Your task to perform on an android device: uninstall "Yahoo Mail" Image 0: 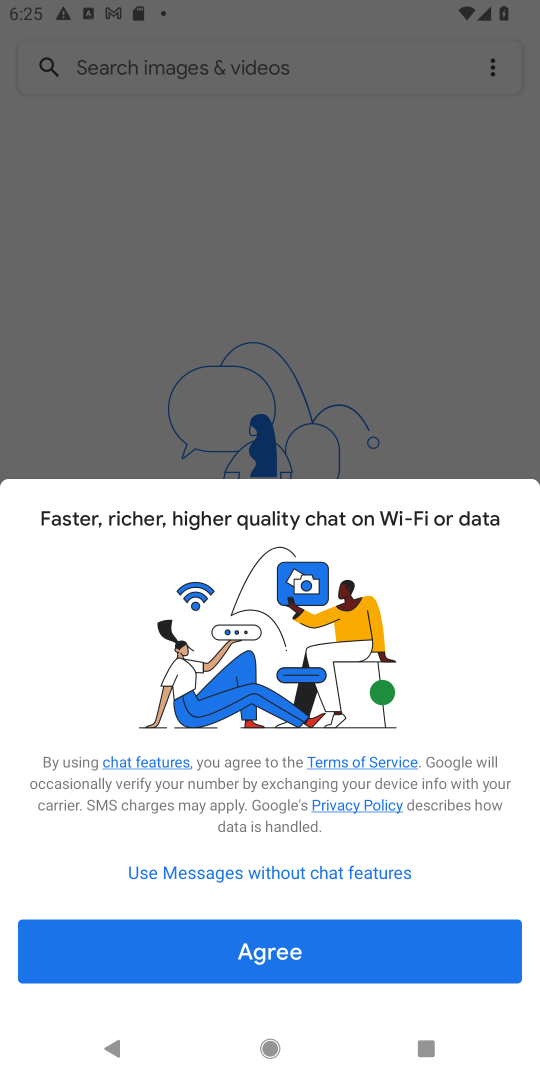
Step 0: press home button
Your task to perform on an android device: uninstall "Yahoo Mail" Image 1: 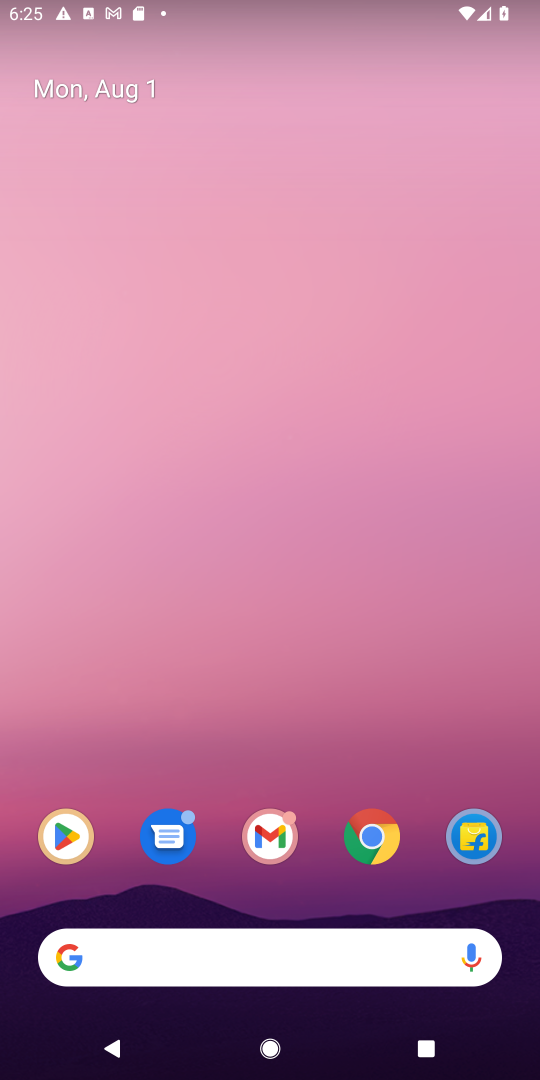
Step 1: click (59, 832)
Your task to perform on an android device: uninstall "Yahoo Mail" Image 2: 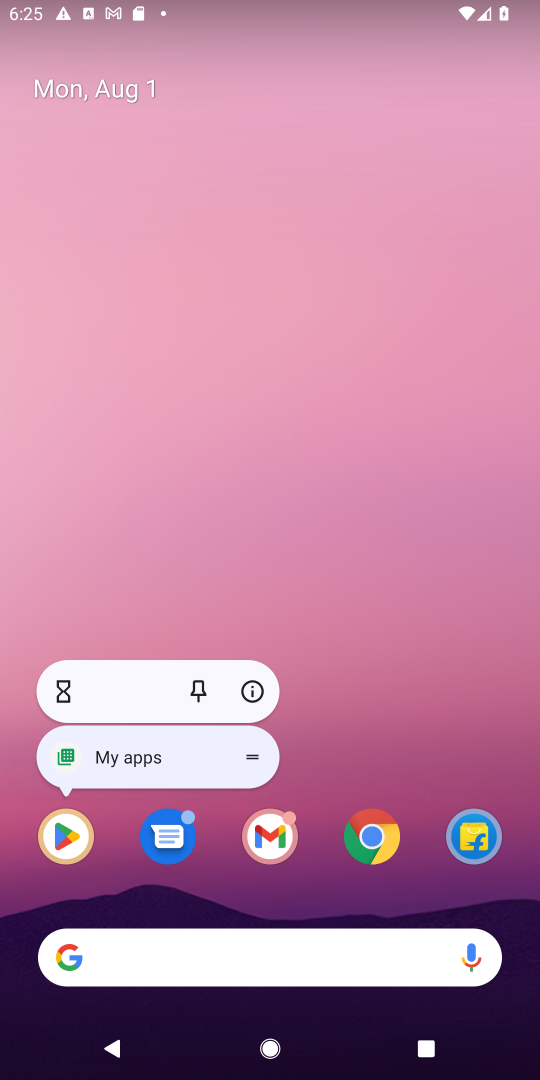
Step 2: click (59, 831)
Your task to perform on an android device: uninstall "Yahoo Mail" Image 3: 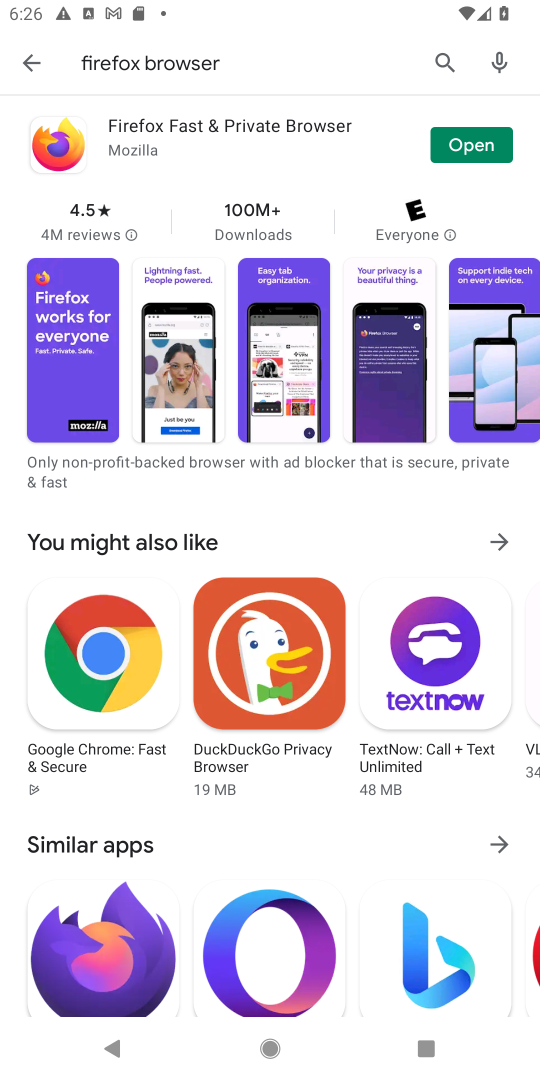
Step 3: click (442, 63)
Your task to perform on an android device: uninstall "Yahoo Mail" Image 4: 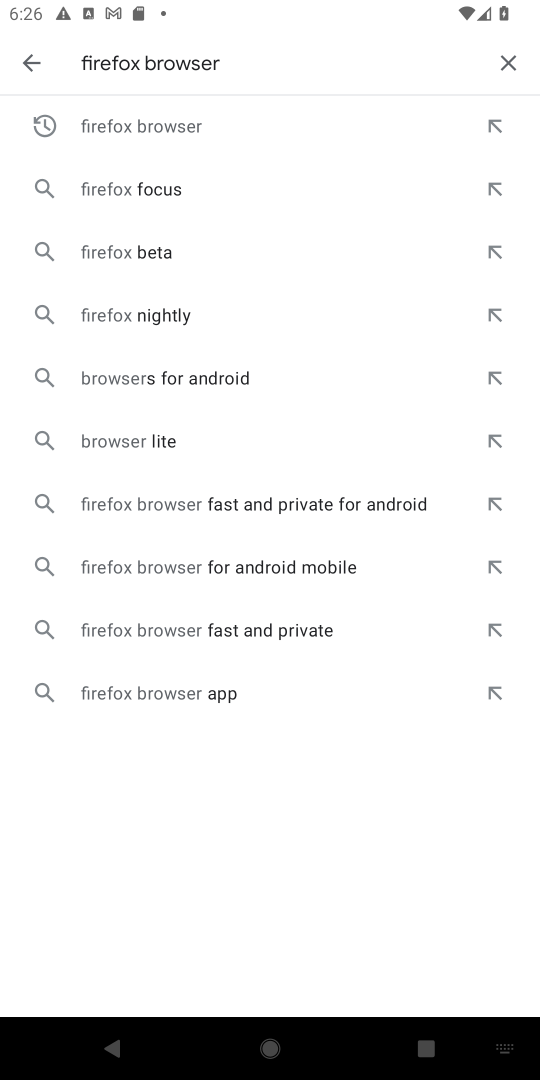
Step 4: click (507, 50)
Your task to perform on an android device: uninstall "Yahoo Mail" Image 5: 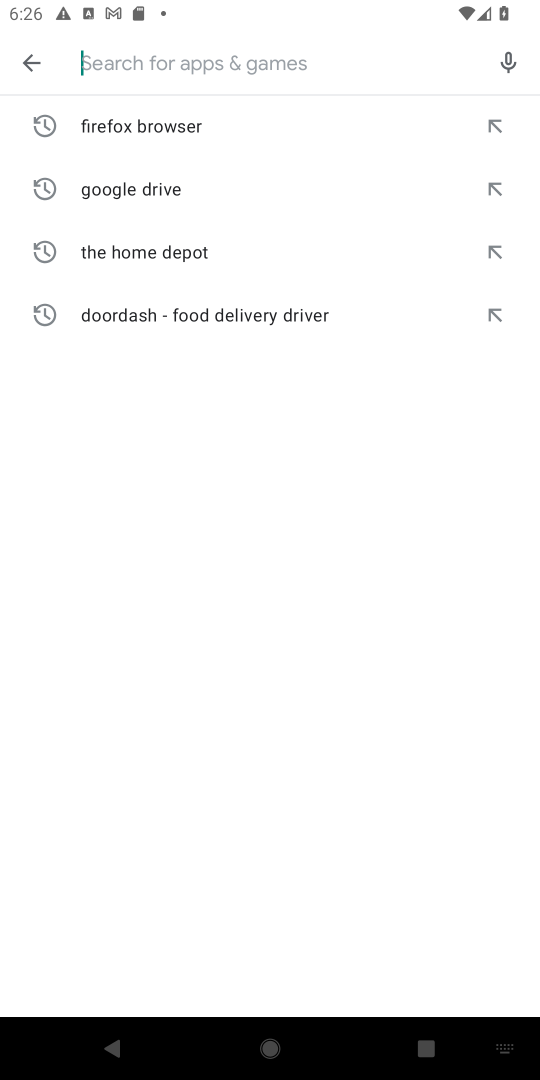
Step 5: type "Yahoo Mail"
Your task to perform on an android device: uninstall "Yahoo Mail" Image 6: 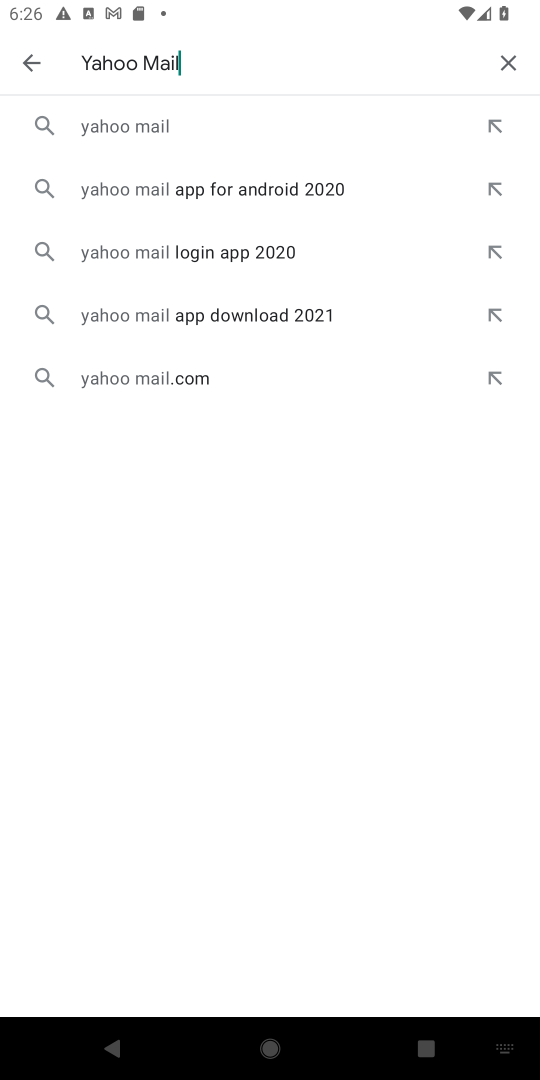
Step 6: click (161, 123)
Your task to perform on an android device: uninstall "Yahoo Mail" Image 7: 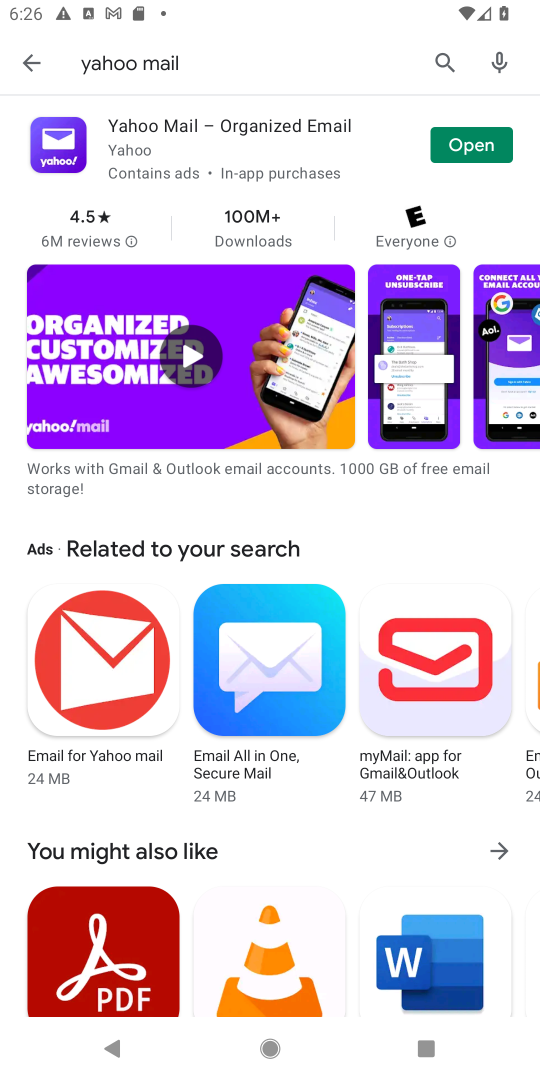
Step 7: click (81, 138)
Your task to perform on an android device: uninstall "Yahoo Mail" Image 8: 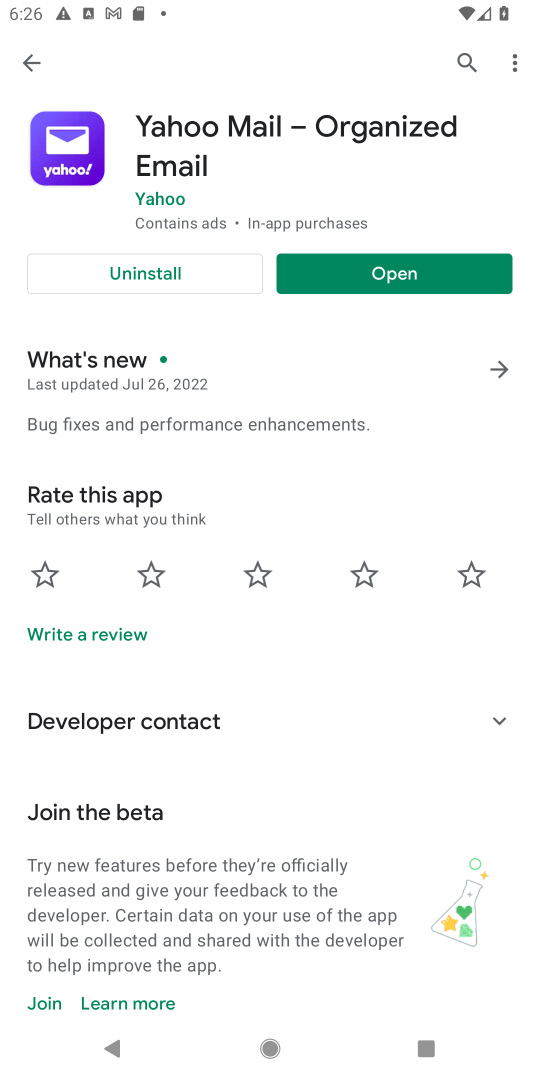
Step 8: click (198, 265)
Your task to perform on an android device: uninstall "Yahoo Mail" Image 9: 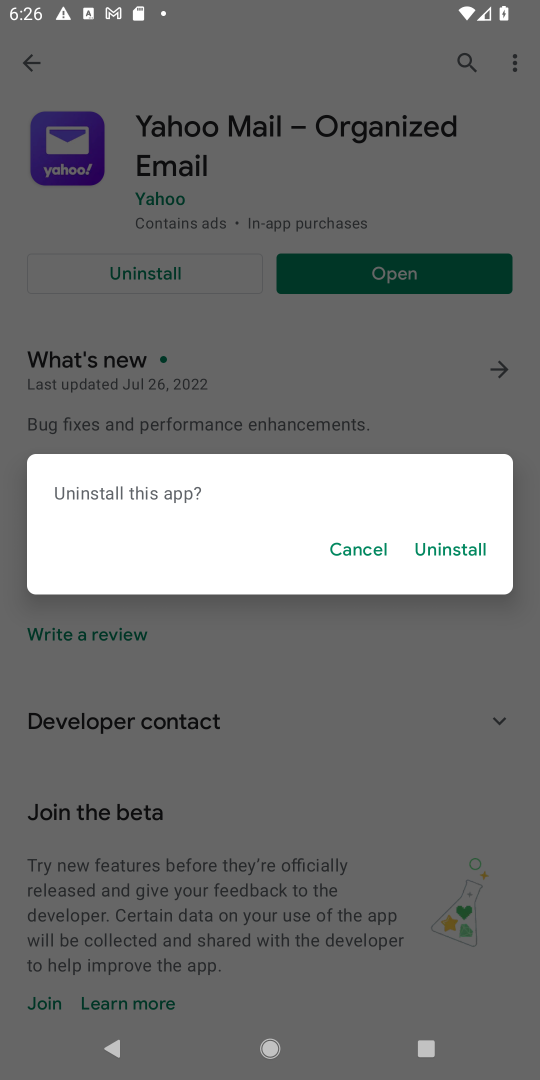
Step 9: click (442, 546)
Your task to perform on an android device: uninstall "Yahoo Mail" Image 10: 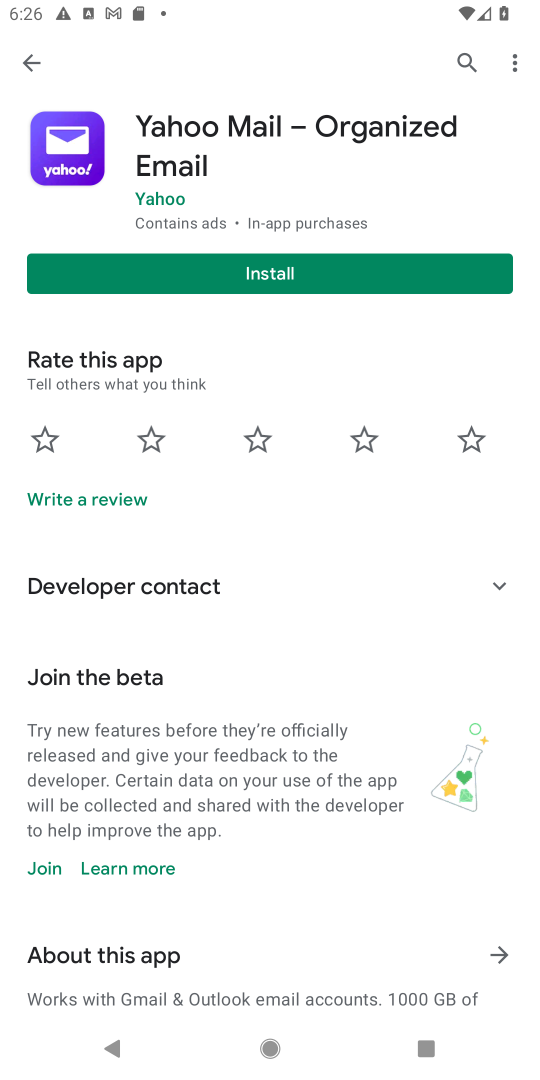
Step 10: task complete